Your task to perform on an android device: Open Google Chrome and open the bookmarks view Image 0: 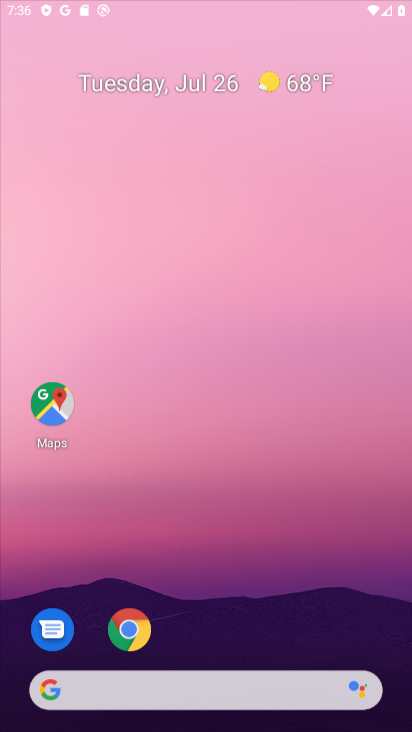
Step 0: drag from (311, 566) to (337, 203)
Your task to perform on an android device: Open Google Chrome and open the bookmarks view Image 1: 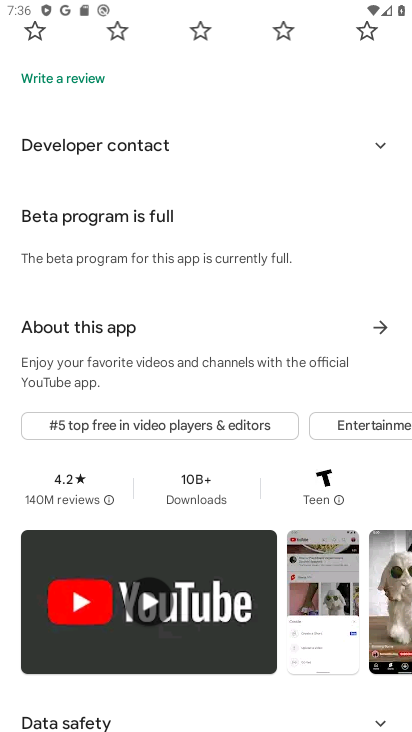
Step 1: press home button
Your task to perform on an android device: Open Google Chrome and open the bookmarks view Image 2: 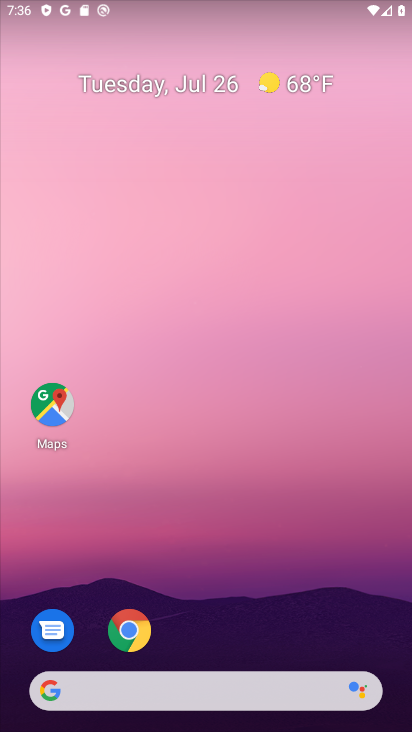
Step 2: drag from (335, 621) to (337, 132)
Your task to perform on an android device: Open Google Chrome and open the bookmarks view Image 3: 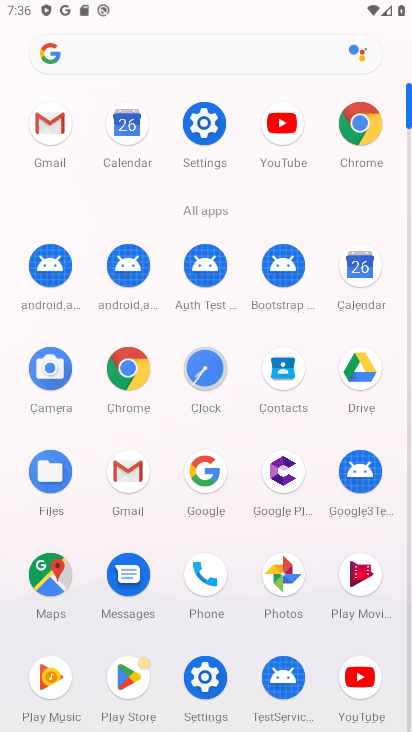
Step 3: click (126, 370)
Your task to perform on an android device: Open Google Chrome and open the bookmarks view Image 4: 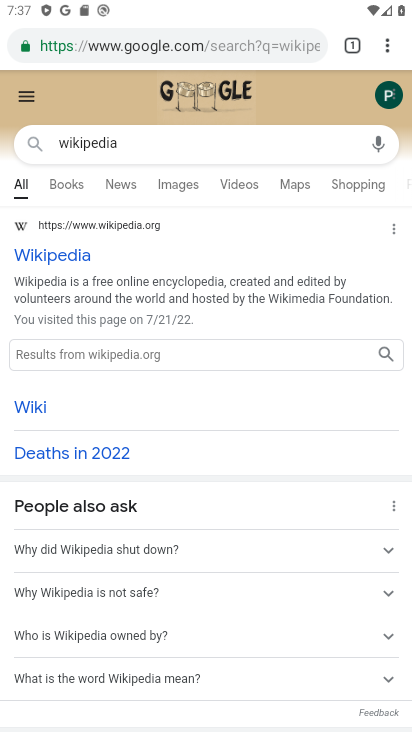
Step 4: click (389, 46)
Your task to perform on an android device: Open Google Chrome and open the bookmarks view Image 5: 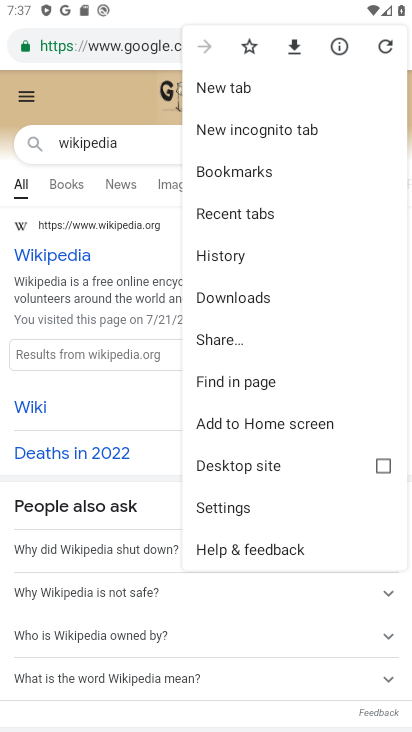
Step 5: click (273, 168)
Your task to perform on an android device: Open Google Chrome and open the bookmarks view Image 6: 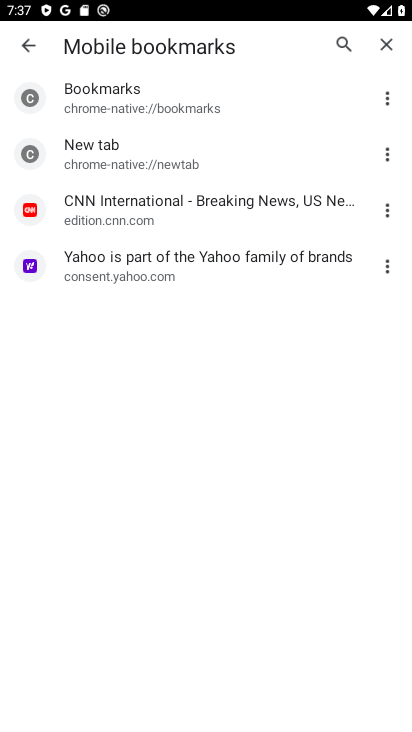
Step 6: task complete